Your task to perform on an android device: change the clock display to analog Image 0: 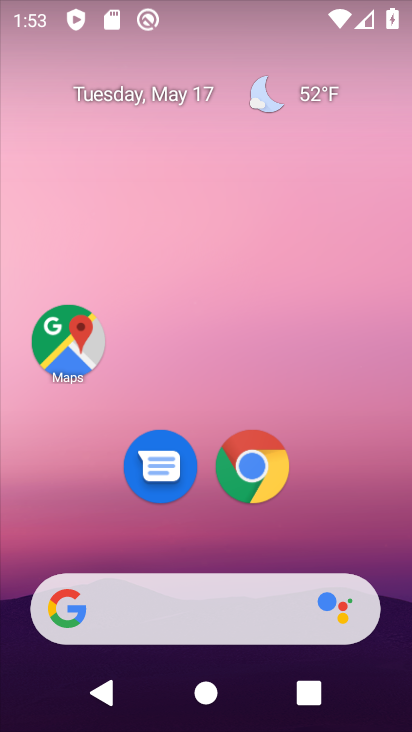
Step 0: drag from (84, 525) to (185, 76)
Your task to perform on an android device: change the clock display to analog Image 1: 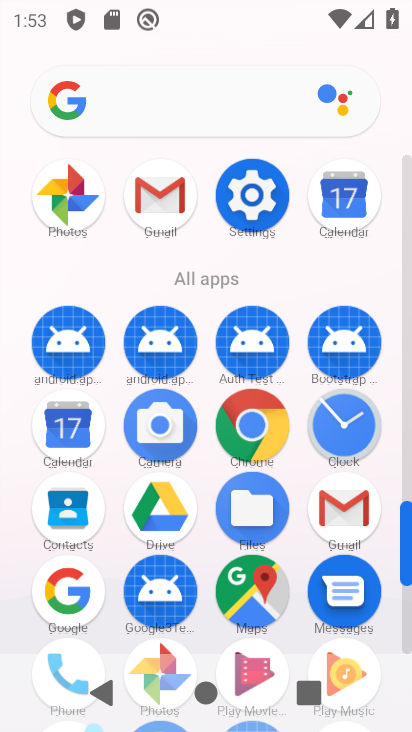
Step 1: click (350, 408)
Your task to perform on an android device: change the clock display to analog Image 2: 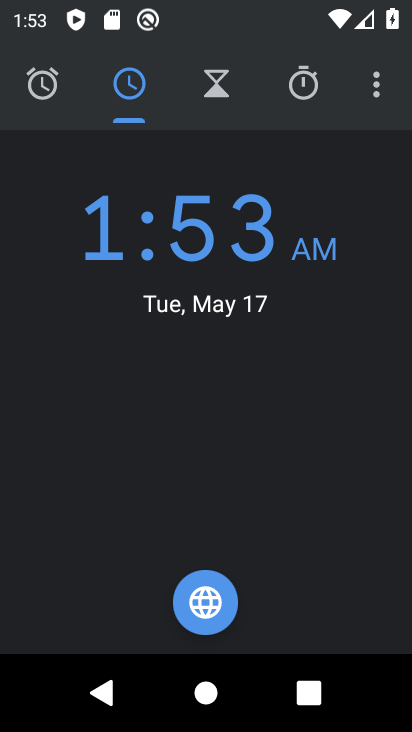
Step 2: click (370, 93)
Your task to perform on an android device: change the clock display to analog Image 3: 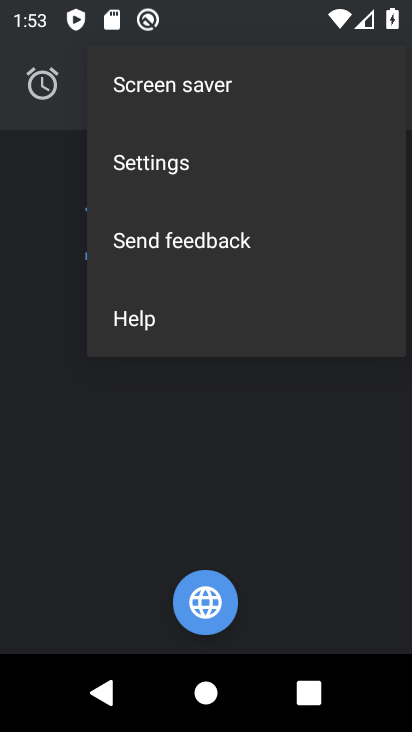
Step 3: click (320, 152)
Your task to perform on an android device: change the clock display to analog Image 4: 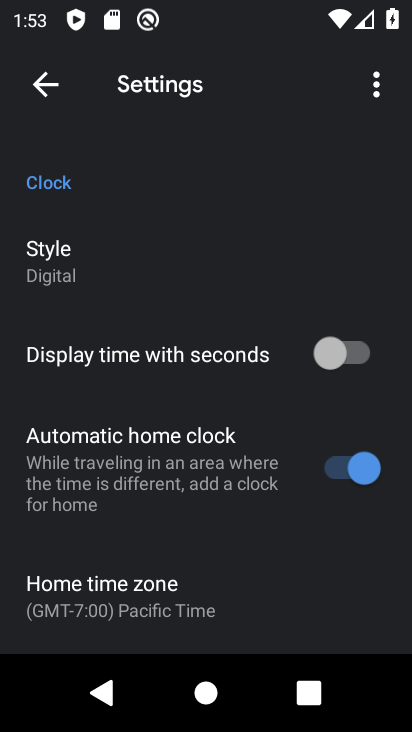
Step 4: click (213, 282)
Your task to perform on an android device: change the clock display to analog Image 5: 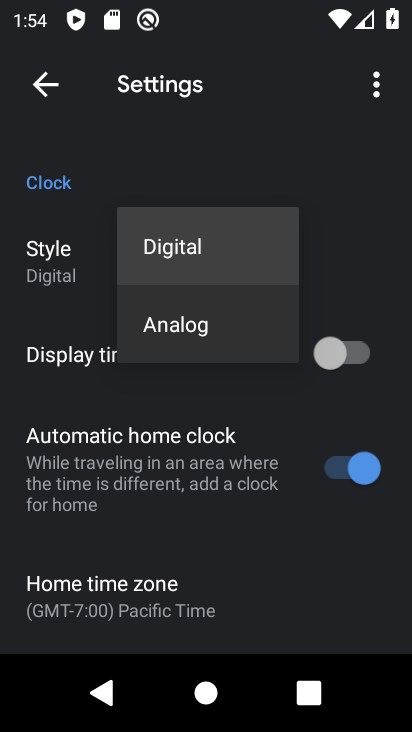
Step 5: click (208, 320)
Your task to perform on an android device: change the clock display to analog Image 6: 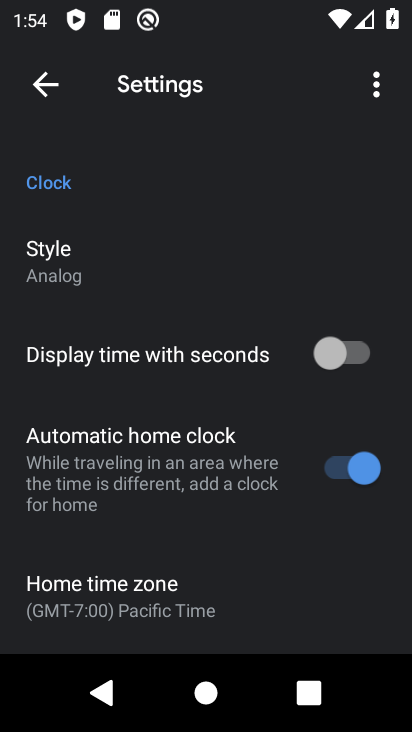
Step 6: task complete